Your task to perform on an android device: Open settings Image 0: 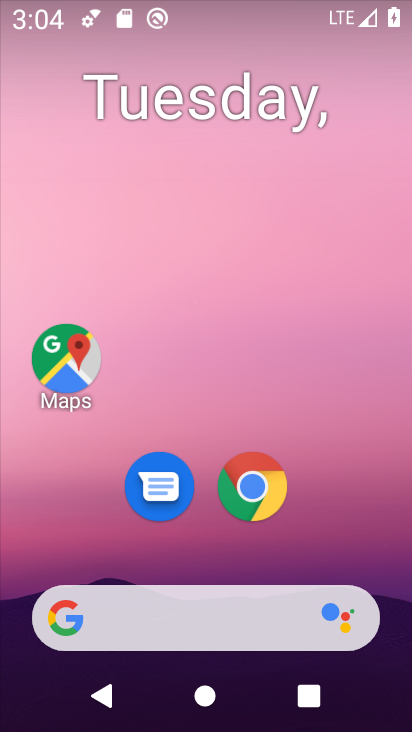
Step 0: drag from (358, 550) to (354, 67)
Your task to perform on an android device: Open settings Image 1: 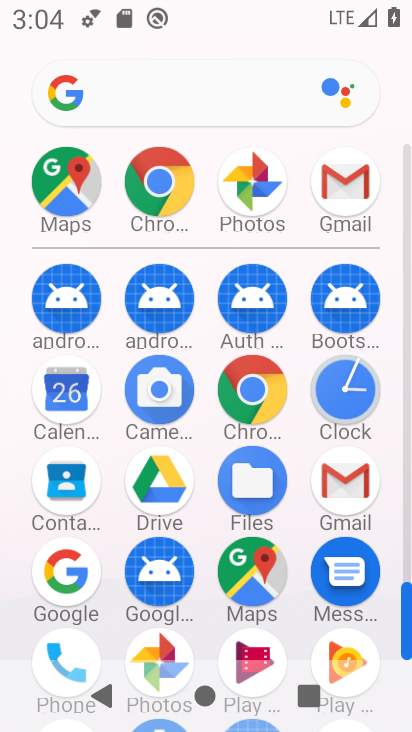
Step 1: drag from (390, 464) to (406, 176)
Your task to perform on an android device: Open settings Image 2: 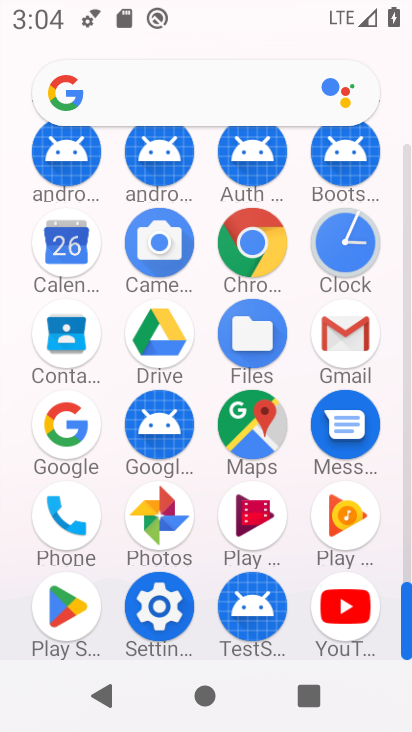
Step 2: click (154, 604)
Your task to perform on an android device: Open settings Image 3: 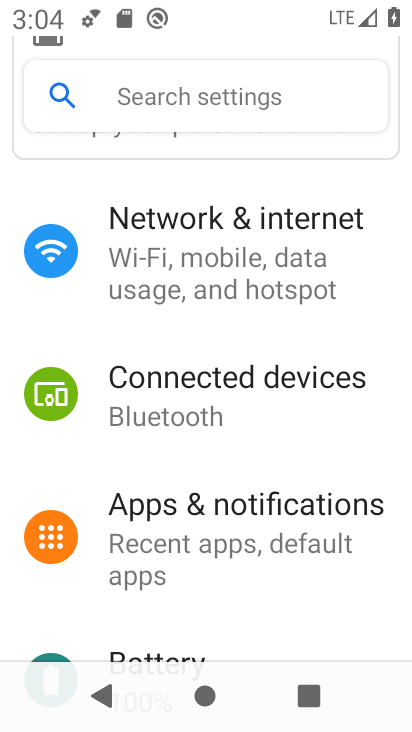
Step 3: task complete